Your task to perform on an android device: open chrome and create a bookmark for the current page Image 0: 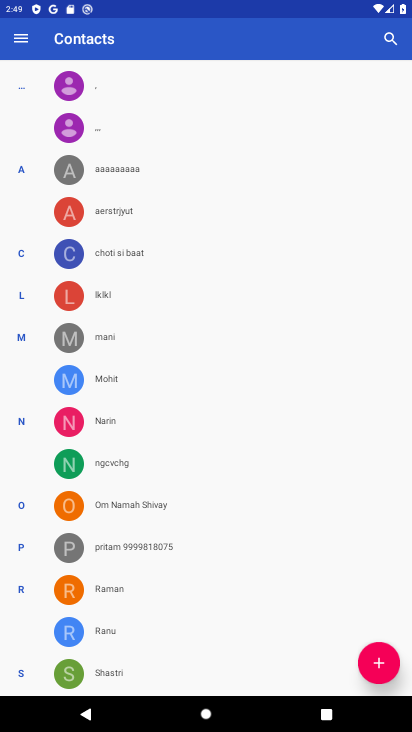
Step 0: press home button
Your task to perform on an android device: open chrome and create a bookmark for the current page Image 1: 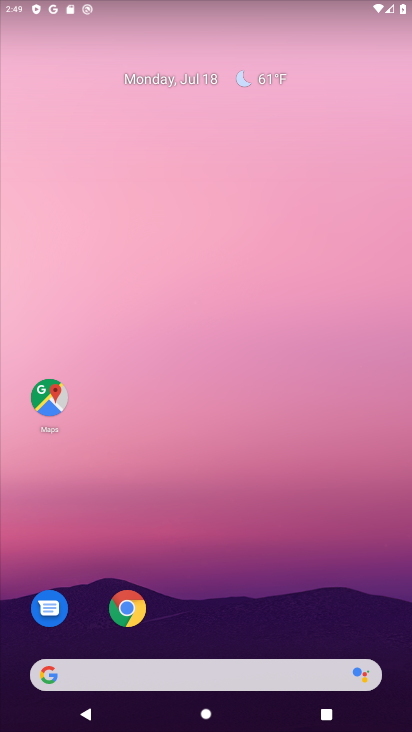
Step 1: click (133, 606)
Your task to perform on an android device: open chrome and create a bookmark for the current page Image 2: 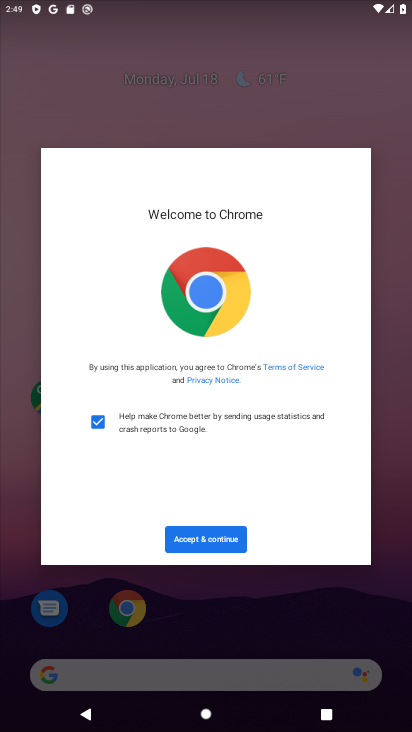
Step 2: click (218, 535)
Your task to perform on an android device: open chrome and create a bookmark for the current page Image 3: 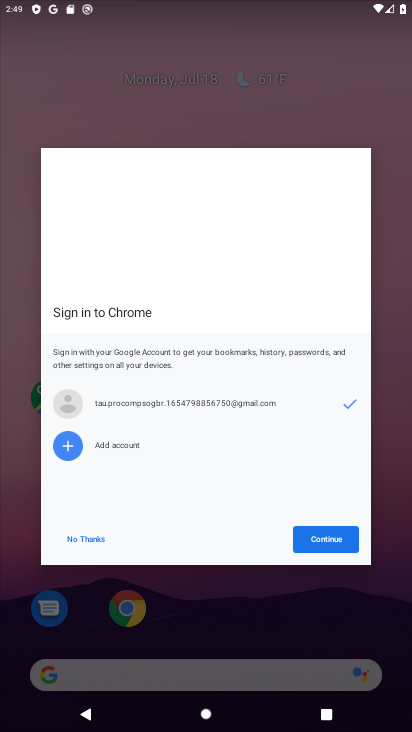
Step 3: click (315, 536)
Your task to perform on an android device: open chrome and create a bookmark for the current page Image 4: 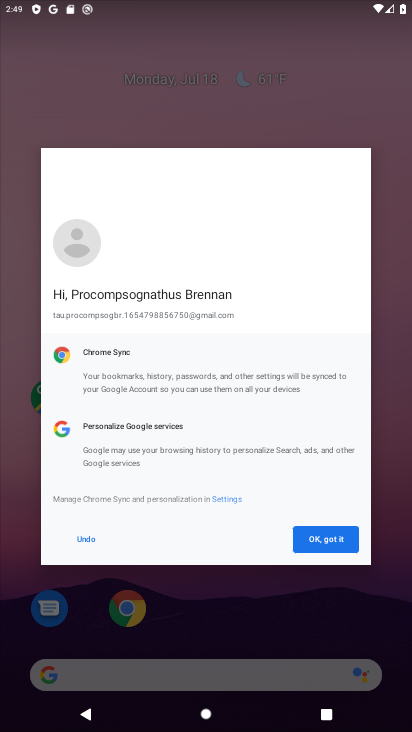
Step 4: click (315, 536)
Your task to perform on an android device: open chrome and create a bookmark for the current page Image 5: 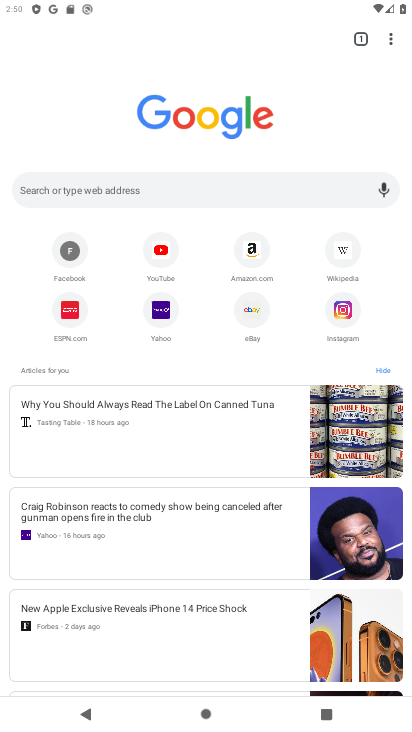
Step 5: click (385, 32)
Your task to perform on an android device: open chrome and create a bookmark for the current page Image 6: 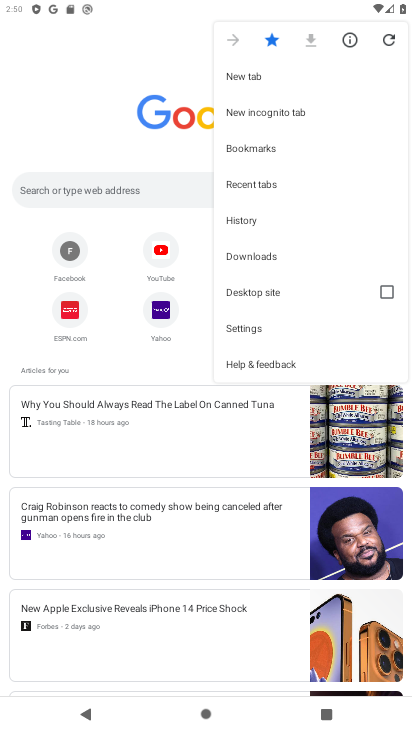
Step 6: task complete